Your task to perform on an android device: Open Maps and search for coffee Image 0: 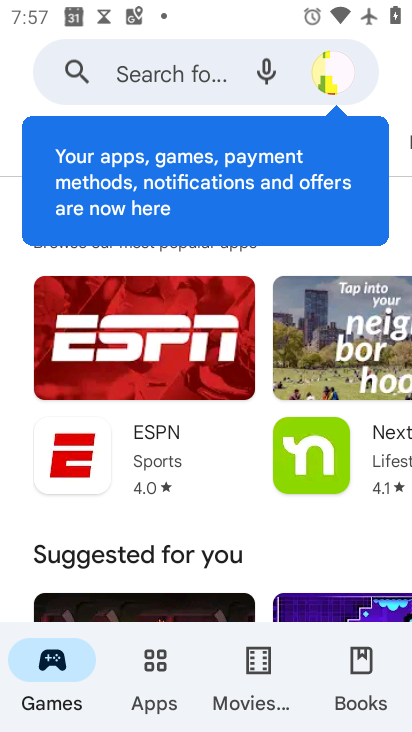
Step 0: press home button
Your task to perform on an android device: Open Maps and search for coffee Image 1: 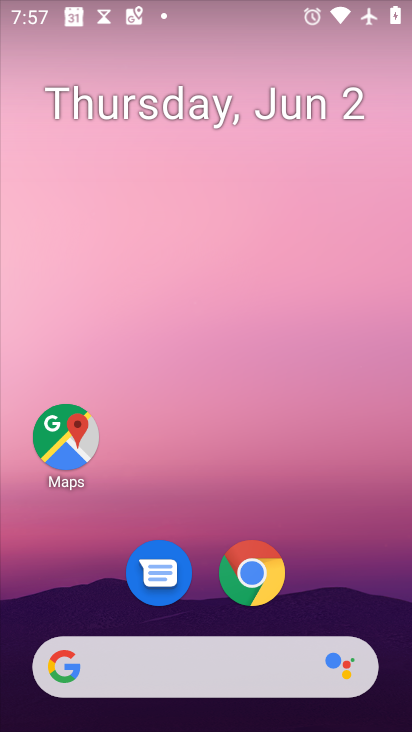
Step 1: click (72, 437)
Your task to perform on an android device: Open Maps and search for coffee Image 2: 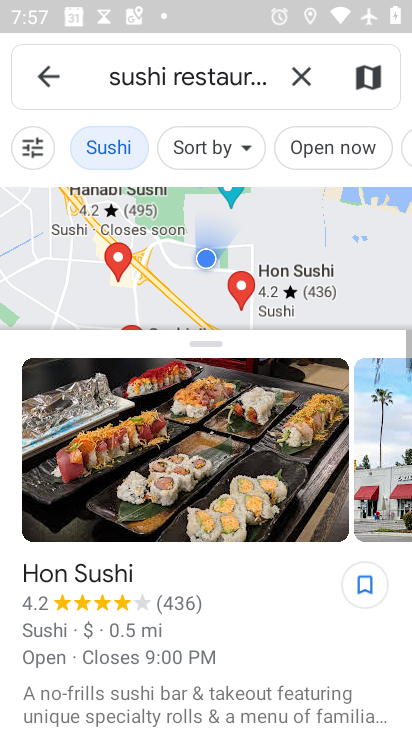
Step 2: click (295, 73)
Your task to perform on an android device: Open Maps and search for coffee Image 3: 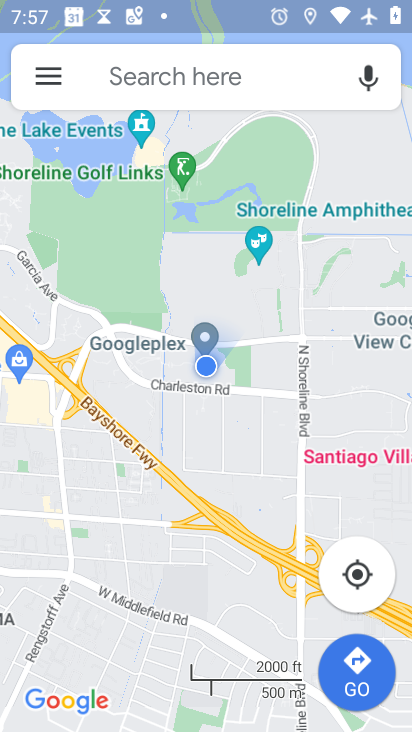
Step 3: click (211, 77)
Your task to perform on an android device: Open Maps and search for coffee Image 4: 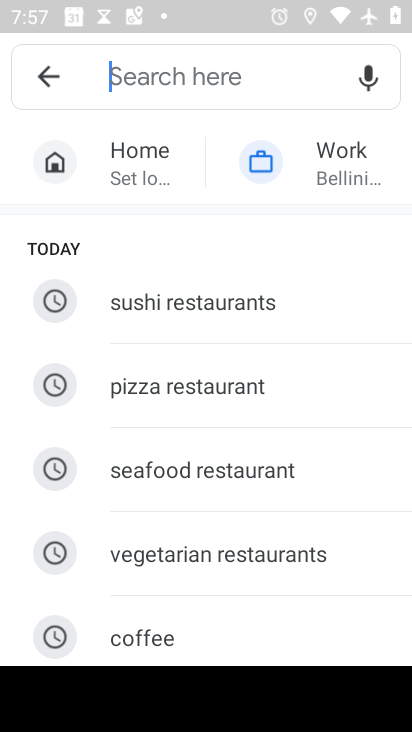
Step 4: click (161, 631)
Your task to perform on an android device: Open Maps and search for coffee Image 5: 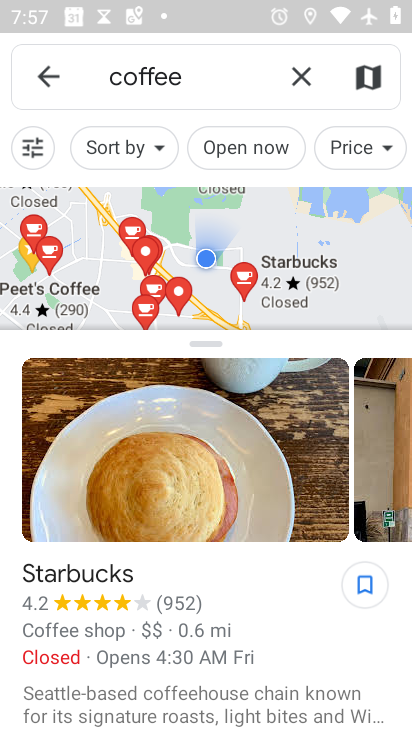
Step 5: task complete